Your task to perform on an android device: read, delete, or share a saved page in the chrome app Image 0: 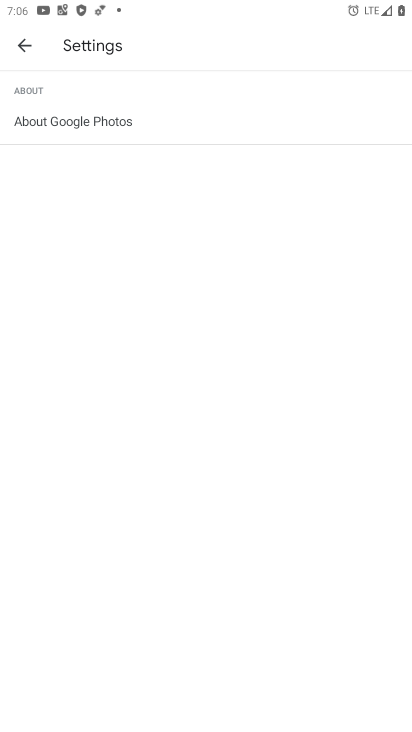
Step 0: press home button
Your task to perform on an android device: read, delete, or share a saved page in the chrome app Image 1: 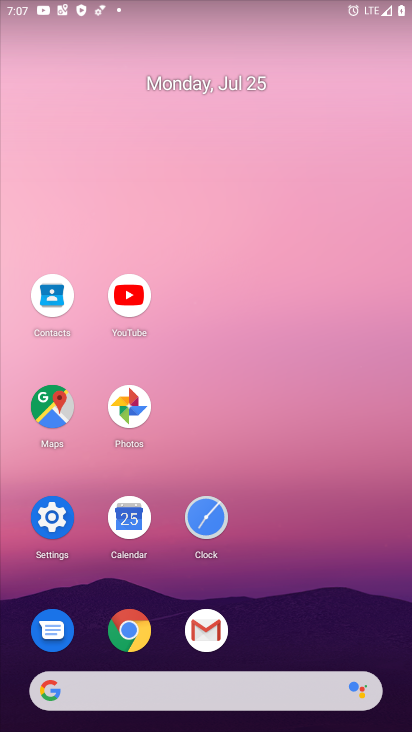
Step 1: click (136, 637)
Your task to perform on an android device: read, delete, or share a saved page in the chrome app Image 2: 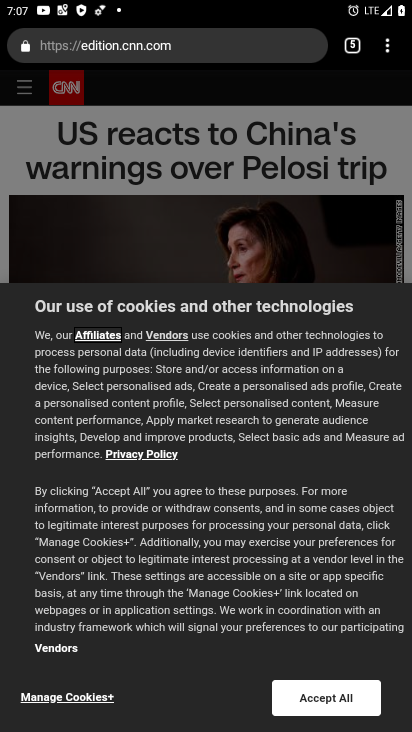
Step 2: click (395, 50)
Your task to perform on an android device: read, delete, or share a saved page in the chrome app Image 3: 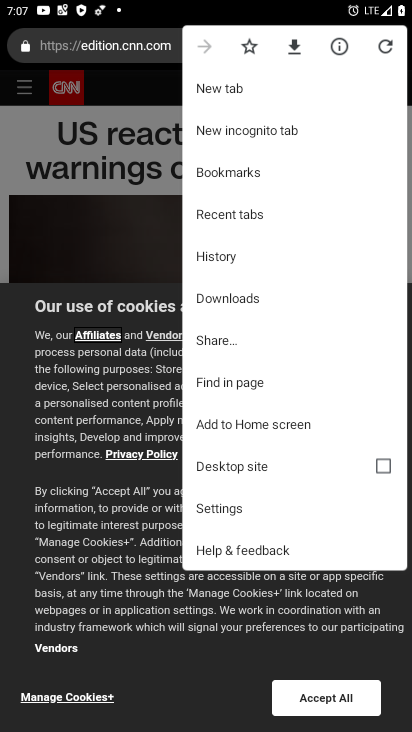
Step 3: click (233, 302)
Your task to perform on an android device: read, delete, or share a saved page in the chrome app Image 4: 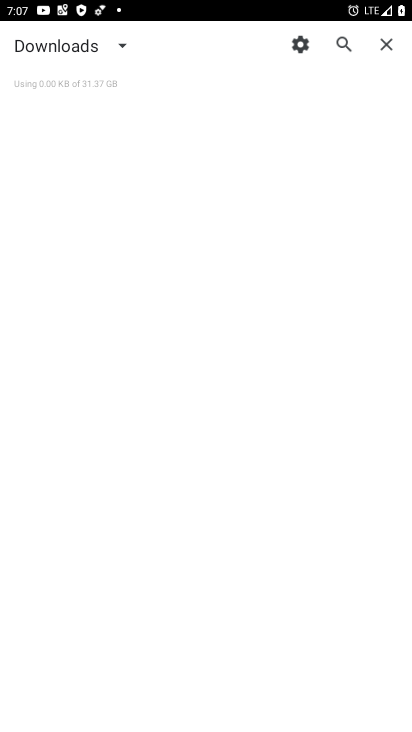
Step 4: task complete